Your task to perform on an android device: Search for Italian restaurants on Maps Image 0: 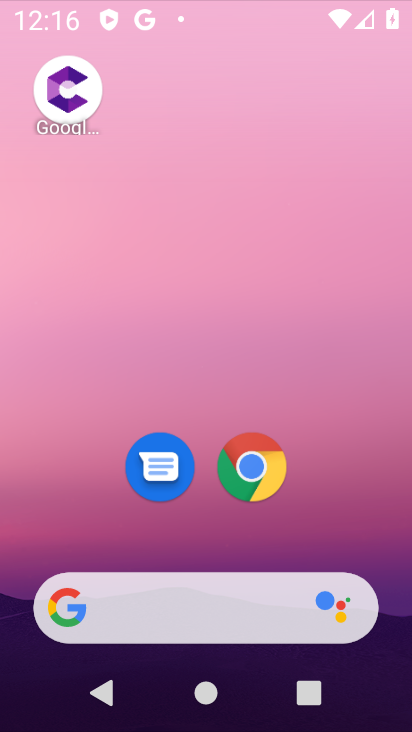
Step 0: click (240, 33)
Your task to perform on an android device: Search for Italian restaurants on Maps Image 1: 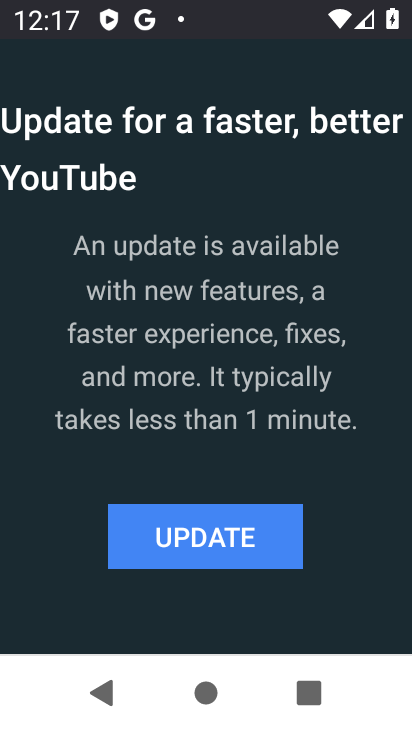
Step 1: press back button
Your task to perform on an android device: Search for Italian restaurants on Maps Image 2: 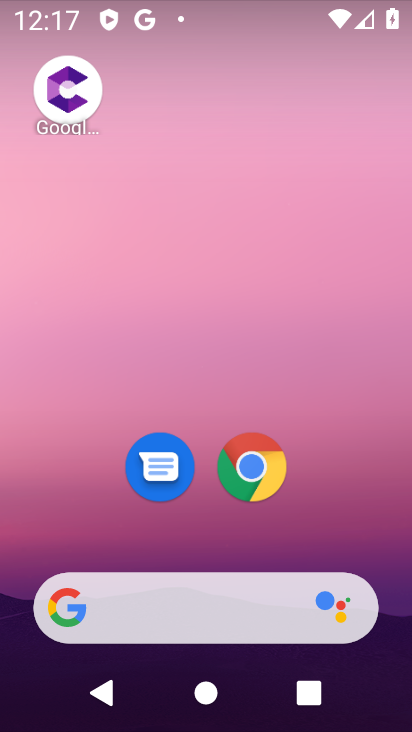
Step 2: drag from (314, 413) to (264, 55)
Your task to perform on an android device: Search for Italian restaurants on Maps Image 3: 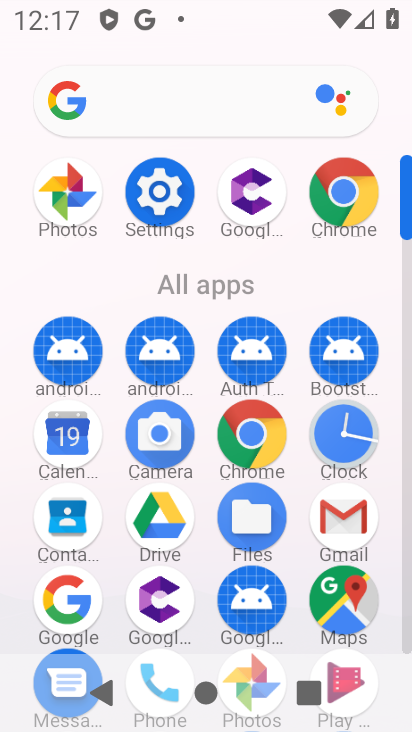
Step 3: drag from (17, 525) to (17, 269)
Your task to perform on an android device: Search for Italian restaurants on Maps Image 4: 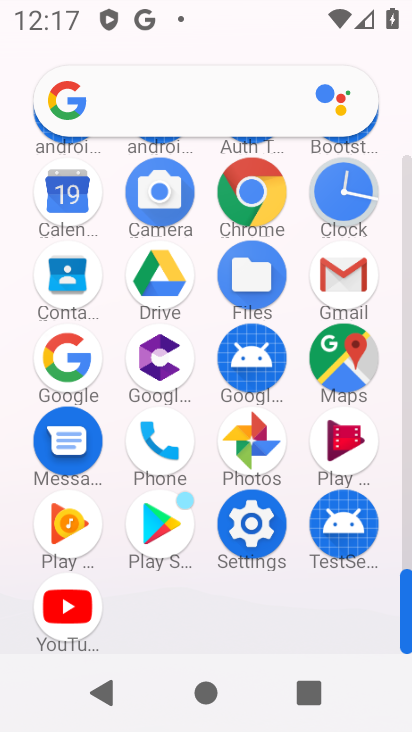
Step 4: click (330, 354)
Your task to perform on an android device: Search for Italian restaurants on Maps Image 5: 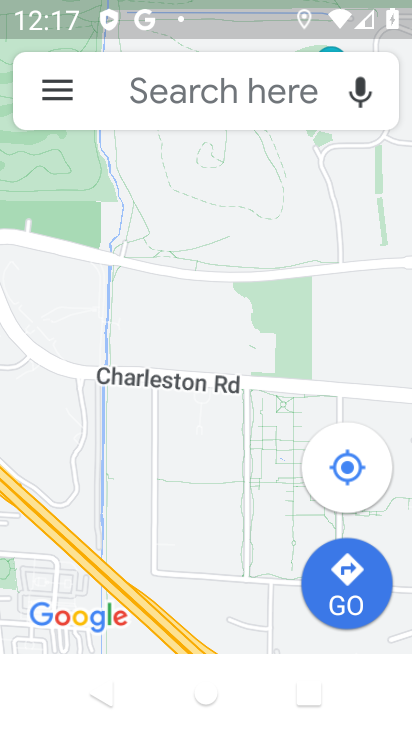
Step 5: click (224, 92)
Your task to perform on an android device: Search for Italian restaurants on Maps Image 6: 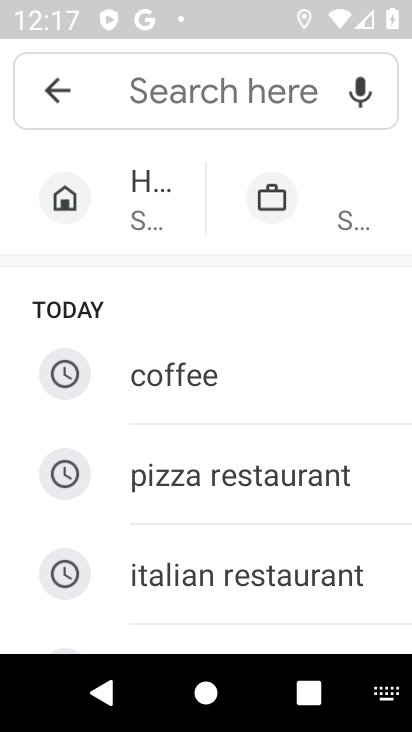
Step 6: click (255, 579)
Your task to perform on an android device: Search for Italian restaurants on Maps Image 7: 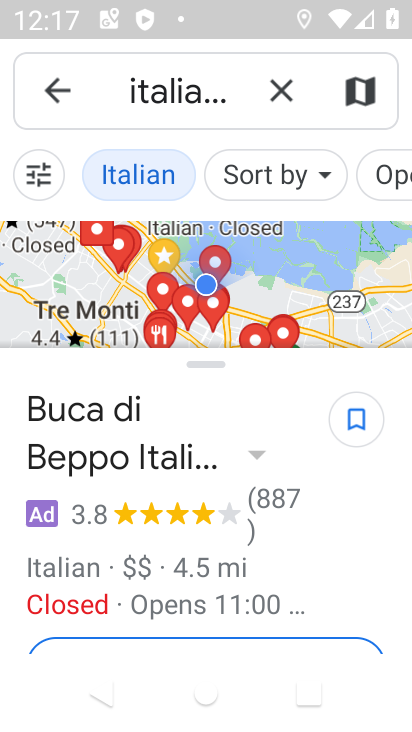
Step 7: task complete